Your task to perform on an android device: turn off translation in the chrome app Image 0: 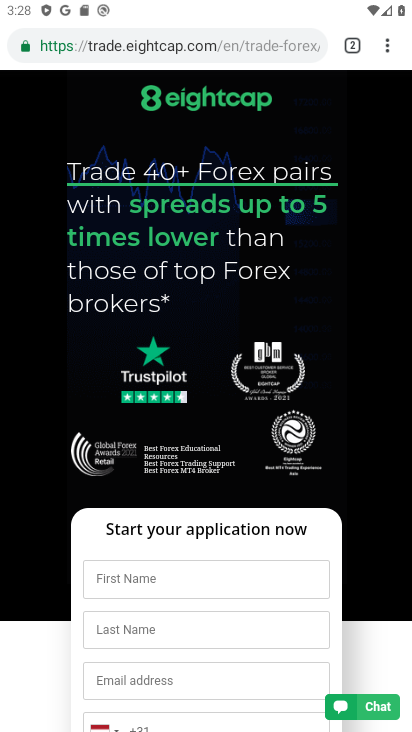
Step 0: press home button
Your task to perform on an android device: turn off translation in the chrome app Image 1: 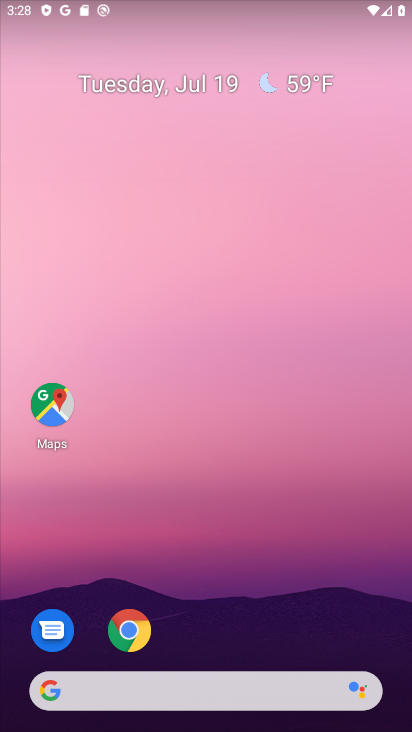
Step 1: click (148, 633)
Your task to perform on an android device: turn off translation in the chrome app Image 2: 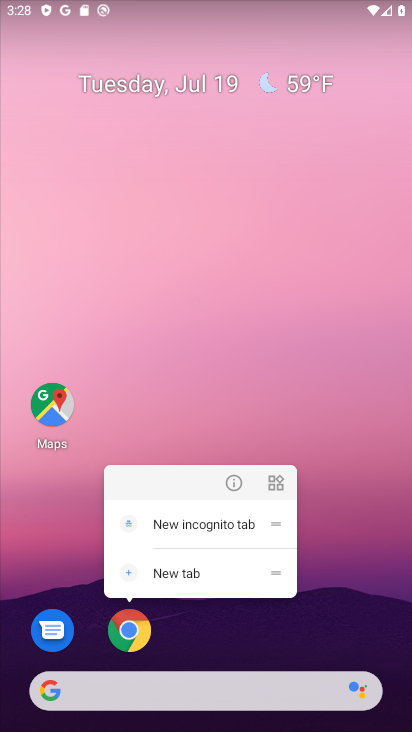
Step 2: click (137, 637)
Your task to perform on an android device: turn off translation in the chrome app Image 3: 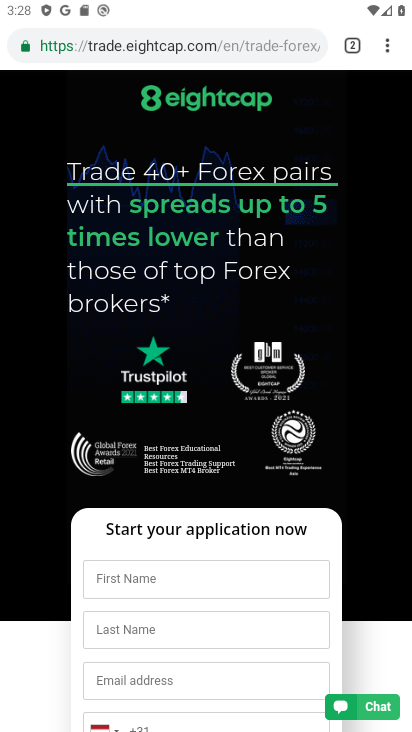
Step 3: drag from (394, 60) to (258, 544)
Your task to perform on an android device: turn off translation in the chrome app Image 4: 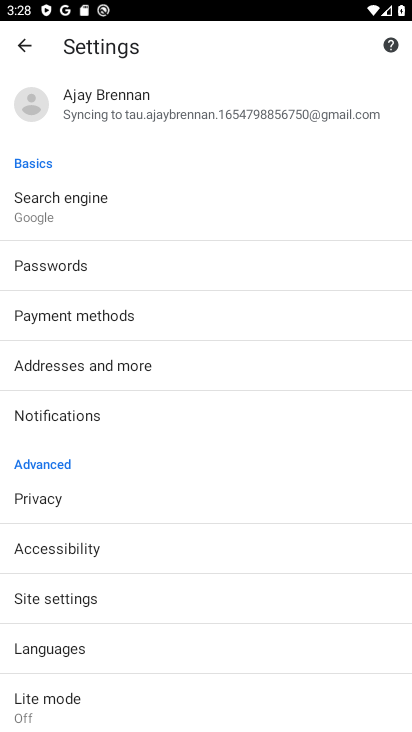
Step 4: click (121, 648)
Your task to perform on an android device: turn off translation in the chrome app Image 5: 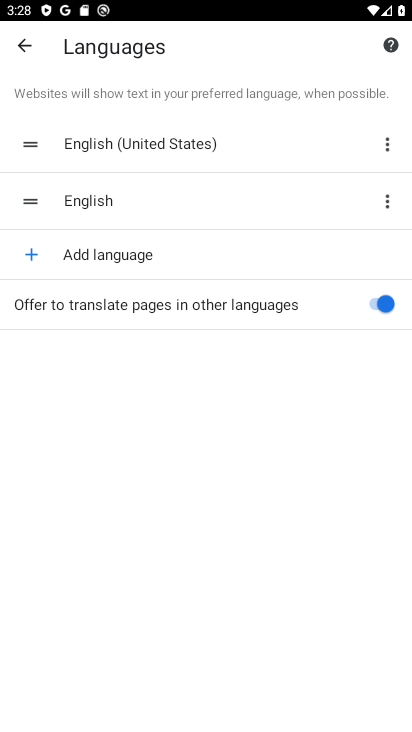
Step 5: click (369, 299)
Your task to perform on an android device: turn off translation in the chrome app Image 6: 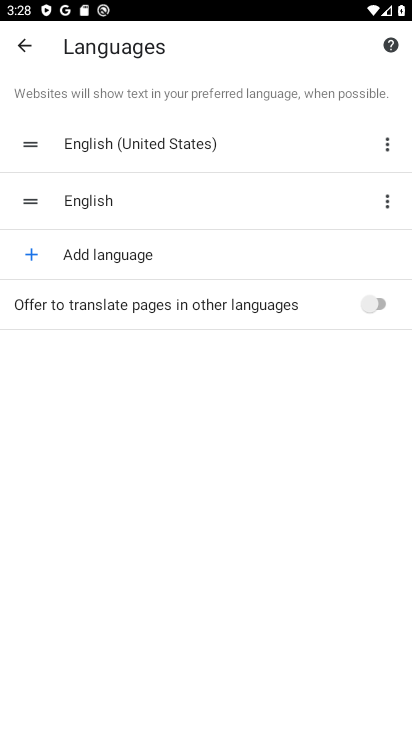
Step 6: task complete